Your task to perform on an android device: set default search engine in the chrome app Image 0: 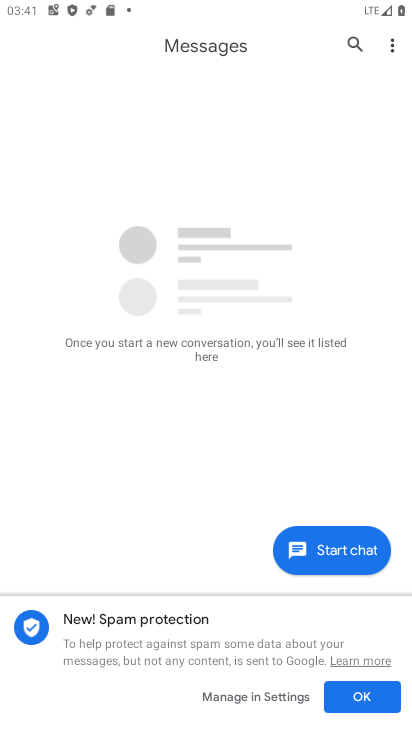
Step 0: press home button
Your task to perform on an android device: set default search engine in the chrome app Image 1: 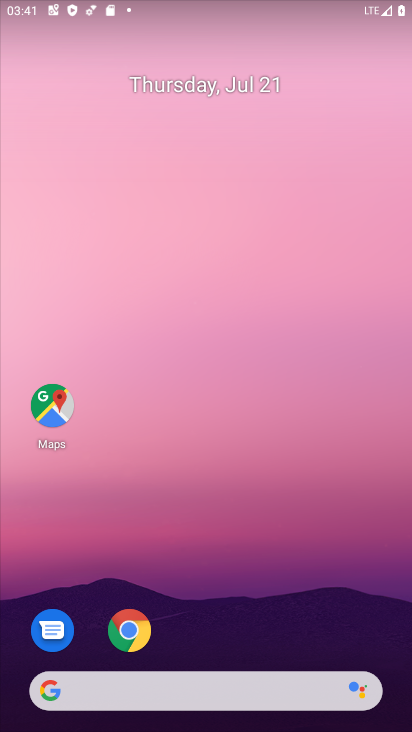
Step 1: click (126, 639)
Your task to perform on an android device: set default search engine in the chrome app Image 2: 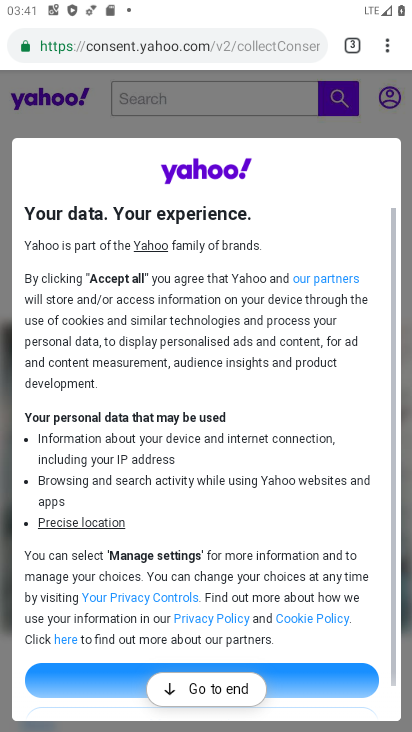
Step 2: click (398, 53)
Your task to perform on an android device: set default search engine in the chrome app Image 3: 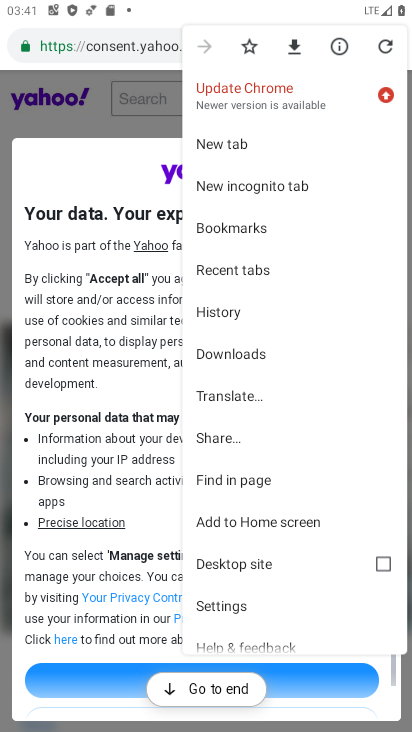
Step 3: click (204, 609)
Your task to perform on an android device: set default search engine in the chrome app Image 4: 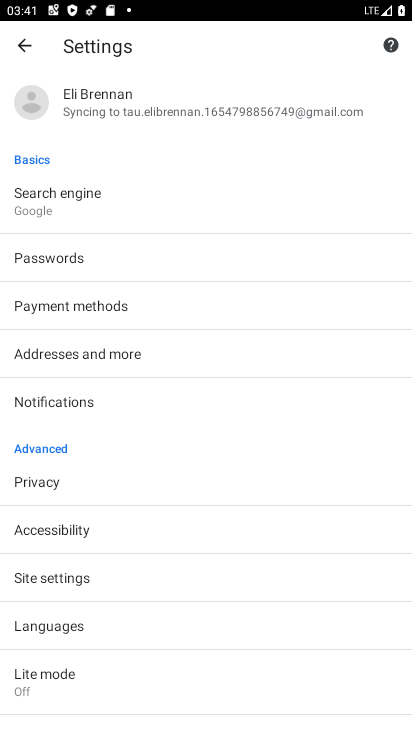
Step 4: click (164, 211)
Your task to perform on an android device: set default search engine in the chrome app Image 5: 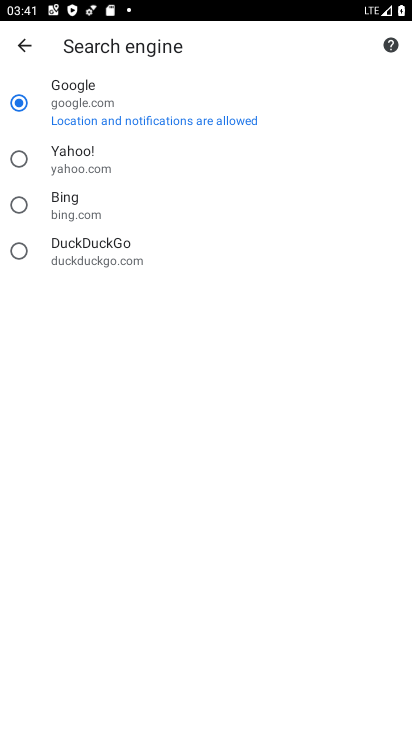
Step 5: click (116, 263)
Your task to perform on an android device: set default search engine in the chrome app Image 6: 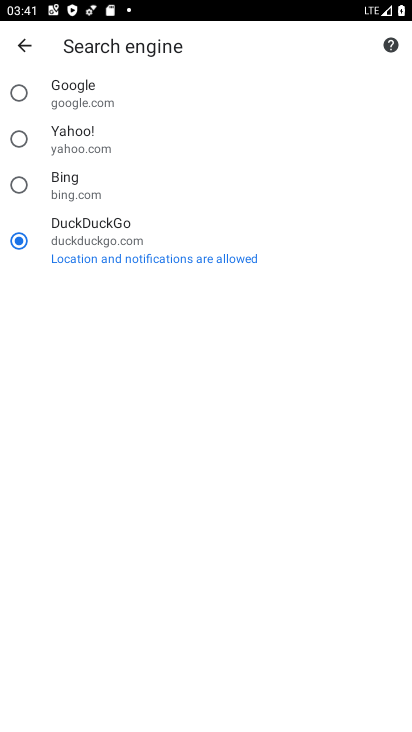
Step 6: task complete